Your task to perform on an android device: delete browsing data in the chrome app Image 0: 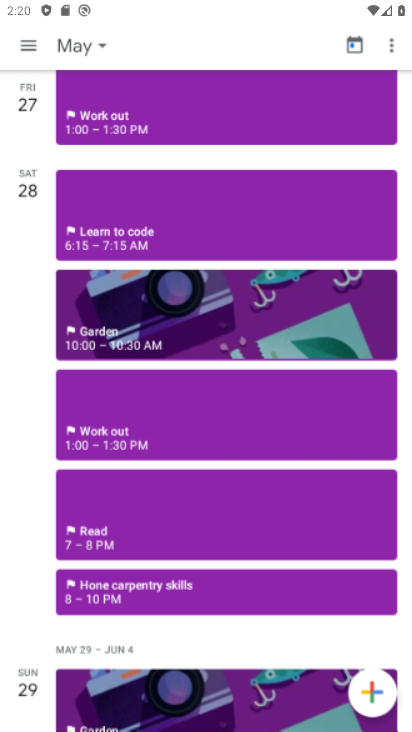
Step 0: drag from (215, 655) to (224, 99)
Your task to perform on an android device: delete browsing data in the chrome app Image 1: 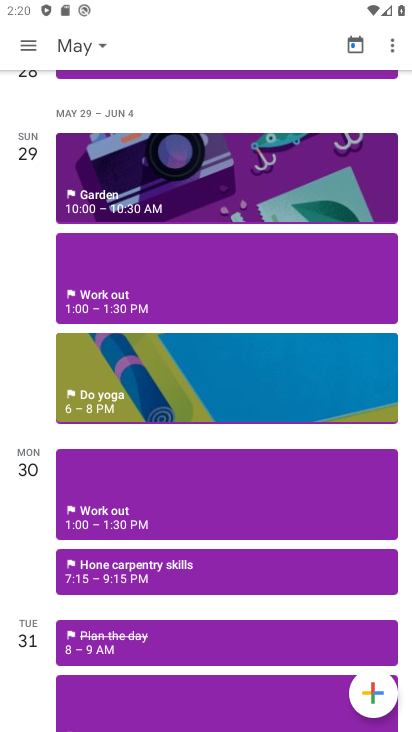
Step 1: press home button
Your task to perform on an android device: delete browsing data in the chrome app Image 2: 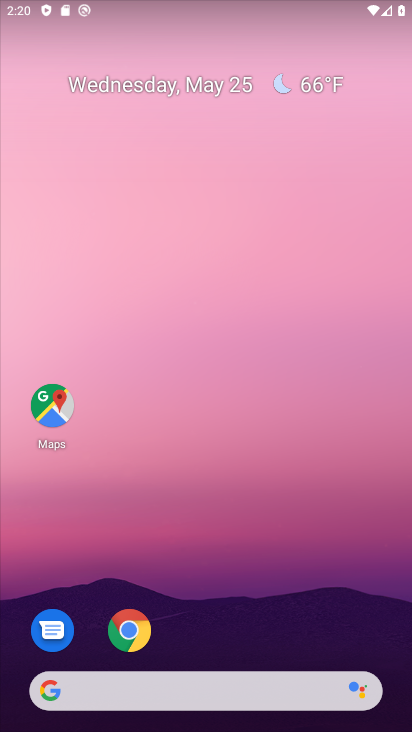
Step 2: click (120, 621)
Your task to perform on an android device: delete browsing data in the chrome app Image 3: 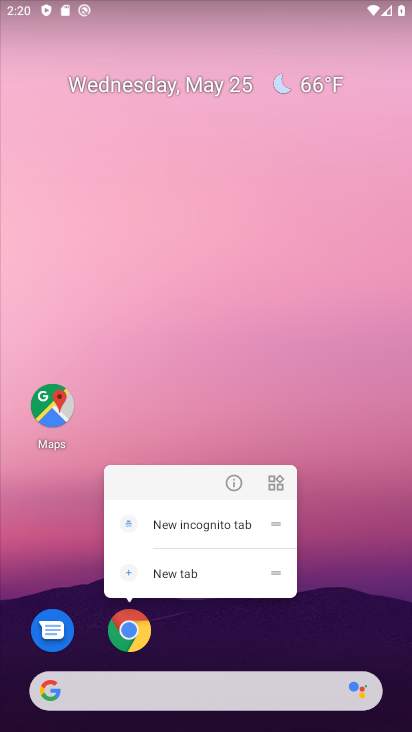
Step 3: click (129, 627)
Your task to perform on an android device: delete browsing data in the chrome app Image 4: 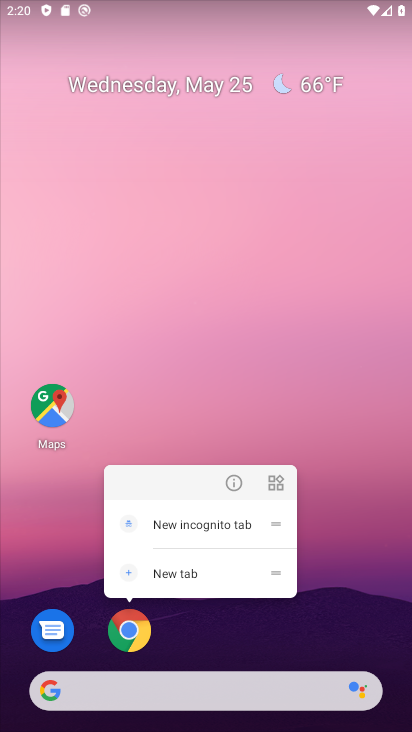
Step 4: click (129, 627)
Your task to perform on an android device: delete browsing data in the chrome app Image 5: 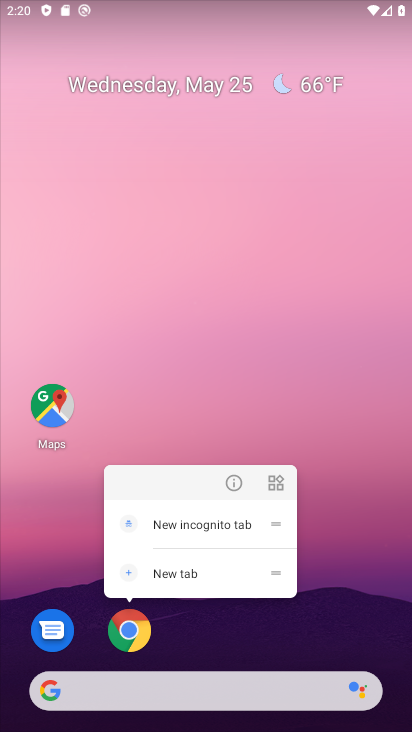
Step 5: click (286, 639)
Your task to perform on an android device: delete browsing data in the chrome app Image 6: 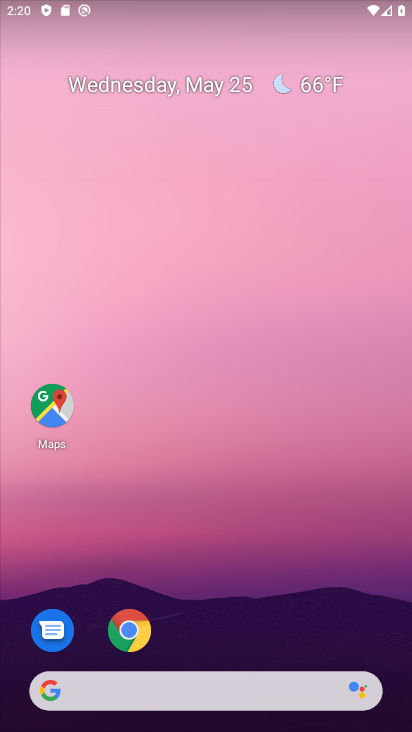
Step 6: drag from (328, 646) to (350, 34)
Your task to perform on an android device: delete browsing data in the chrome app Image 7: 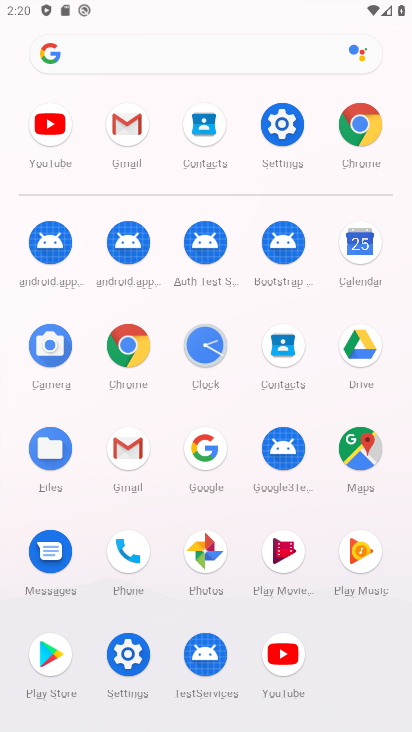
Step 7: click (357, 116)
Your task to perform on an android device: delete browsing data in the chrome app Image 8: 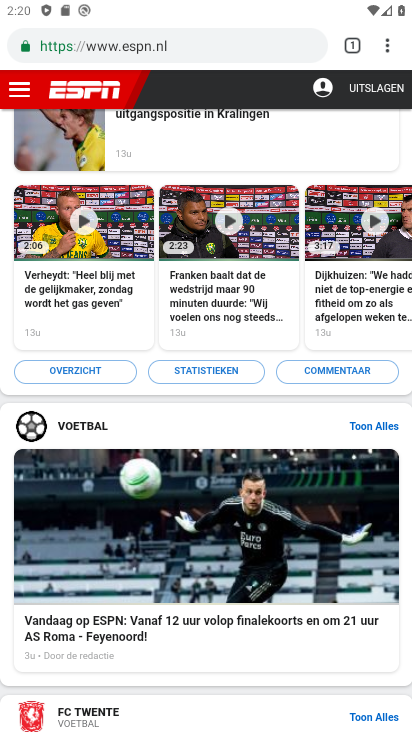
Step 8: click (387, 42)
Your task to perform on an android device: delete browsing data in the chrome app Image 9: 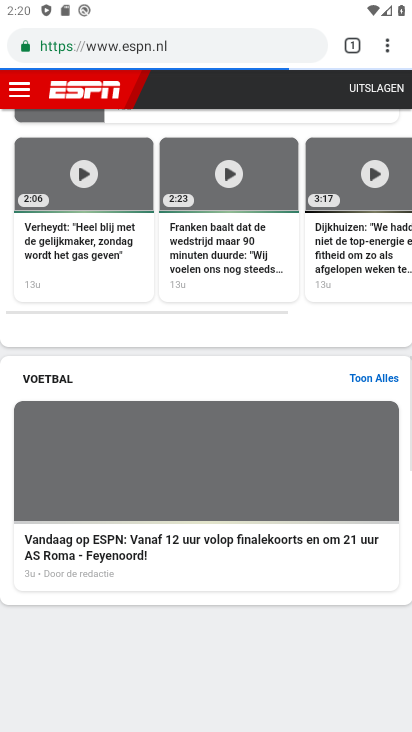
Step 9: click (387, 41)
Your task to perform on an android device: delete browsing data in the chrome app Image 10: 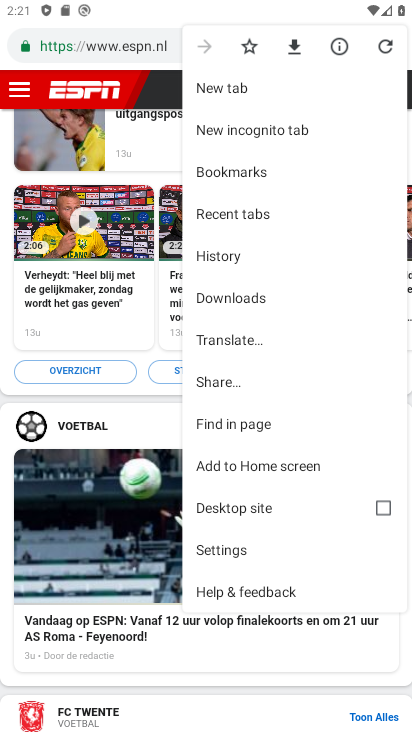
Step 10: click (254, 255)
Your task to perform on an android device: delete browsing data in the chrome app Image 11: 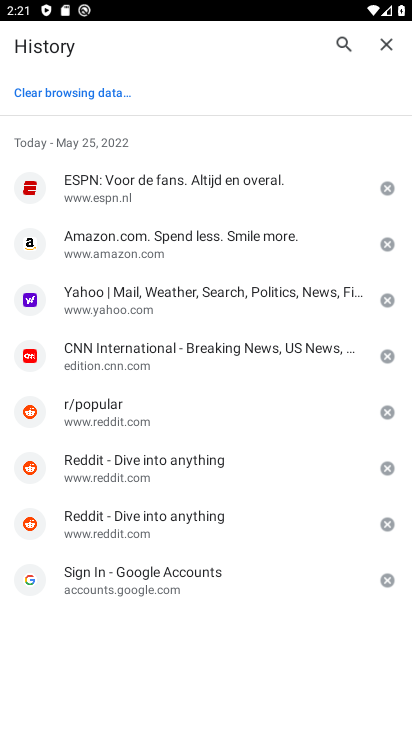
Step 11: click (73, 91)
Your task to perform on an android device: delete browsing data in the chrome app Image 12: 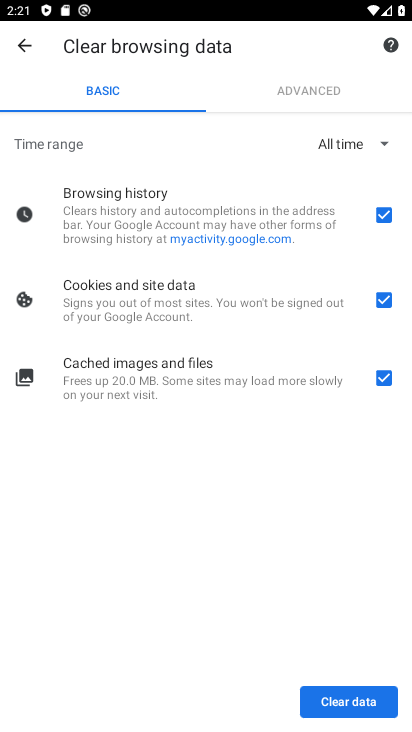
Step 12: click (349, 696)
Your task to perform on an android device: delete browsing data in the chrome app Image 13: 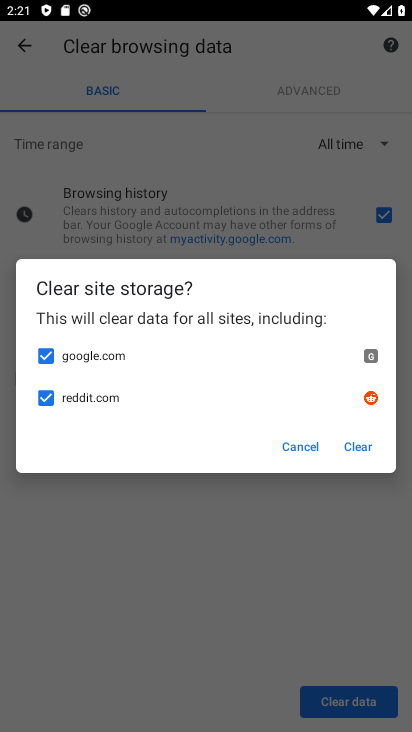
Step 13: click (358, 447)
Your task to perform on an android device: delete browsing data in the chrome app Image 14: 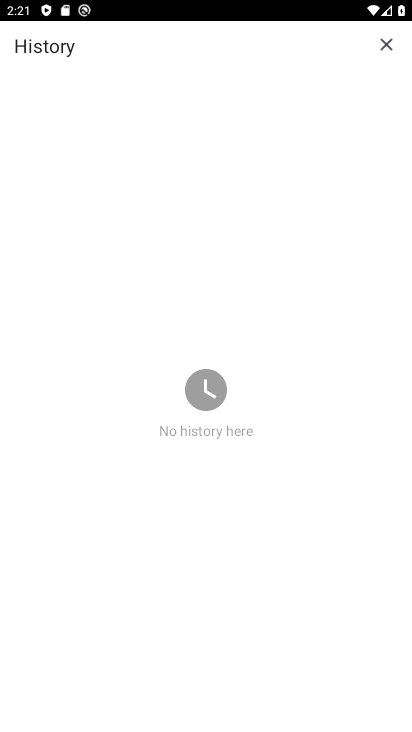
Step 14: task complete